Your task to perform on an android device: Find coffee shops on Maps Image 0: 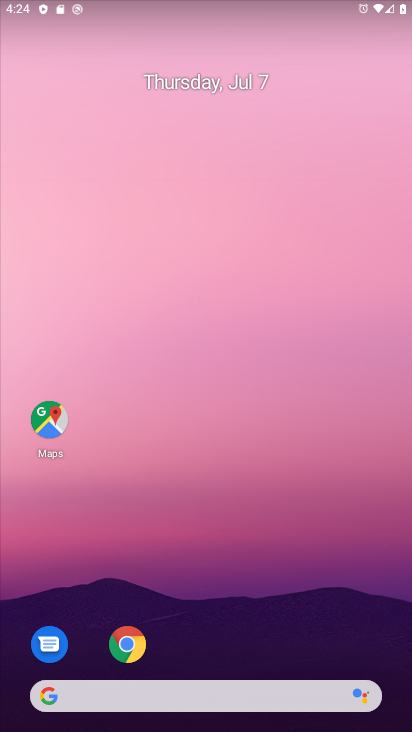
Step 0: click (53, 419)
Your task to perform on an android device: Find coffee shops on Maps Image 1: 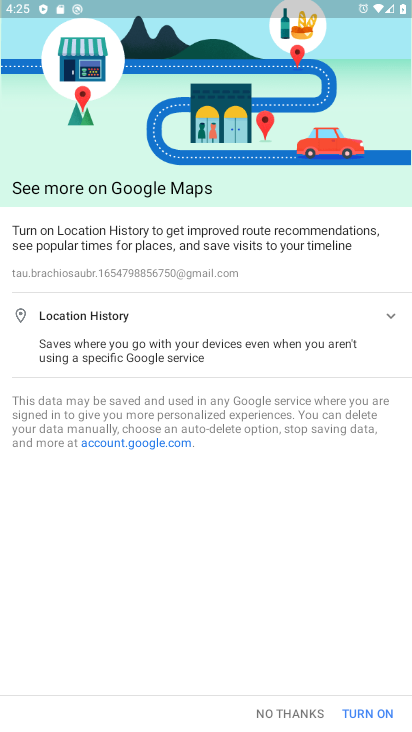
Step 1: click (293, 711)
Your task to perform on an android device: Find coffee shops on Maps Image 2: 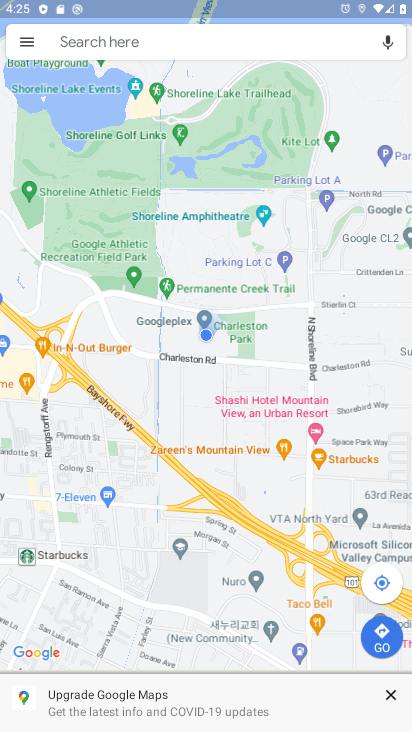
Step 2: click (239, 40)
Your task to perform on an android device: Find coffee shops on Maps Image 3: 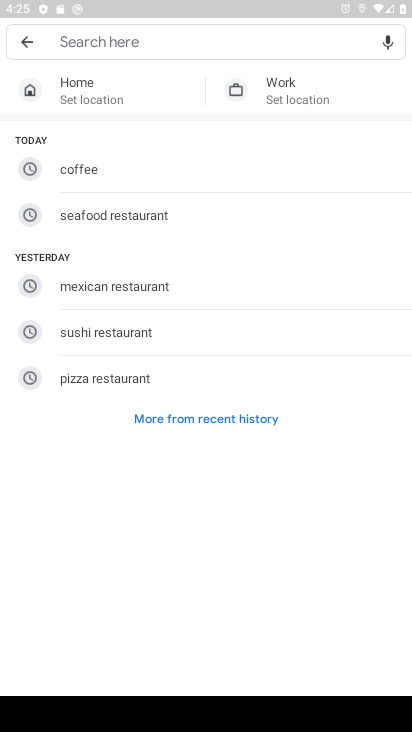
Step 3: type "coffee shops"
Your task to perform on an android device: Find coffee shops on Maps Image 4: 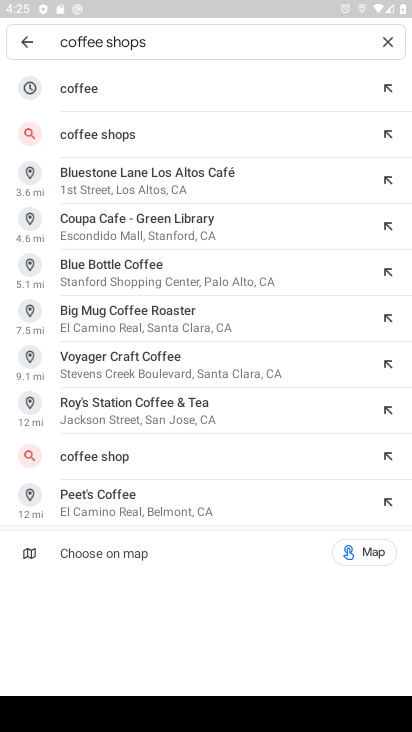
Step 4: click (103, 138)
Your task to perform on an android device: Find coffee shops on Maps Image 5: 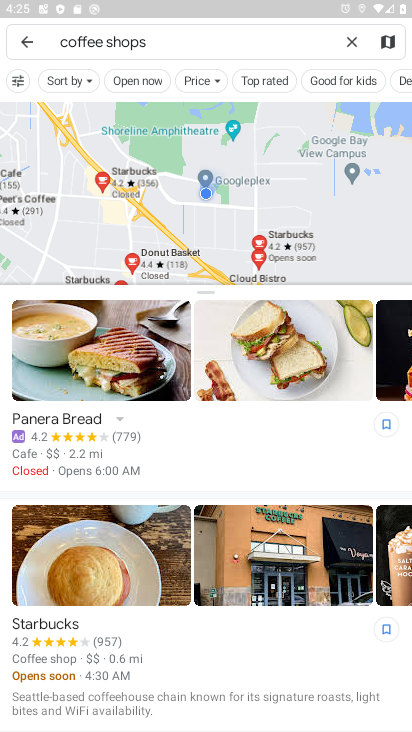
Step 5: task complete